Your task to perform on an android device: Search for sushi restaurants on Maps Image 0: 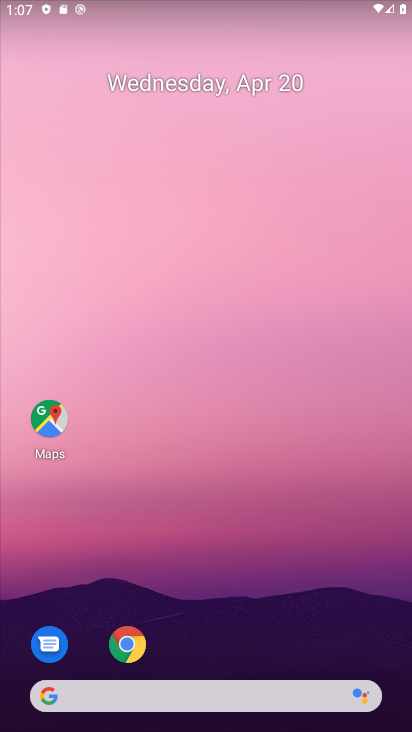
Step 0: click (52, 430)
Your task to perform on an android device: Search for sushi restaurants on Maps Image 1: 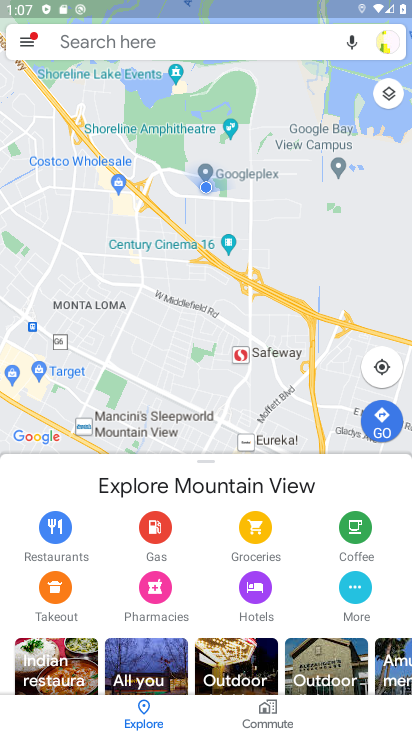
Step 1: click (162, 39)
Your task to perform on an android device: Search for sushi restaurants on Maps Image 2: 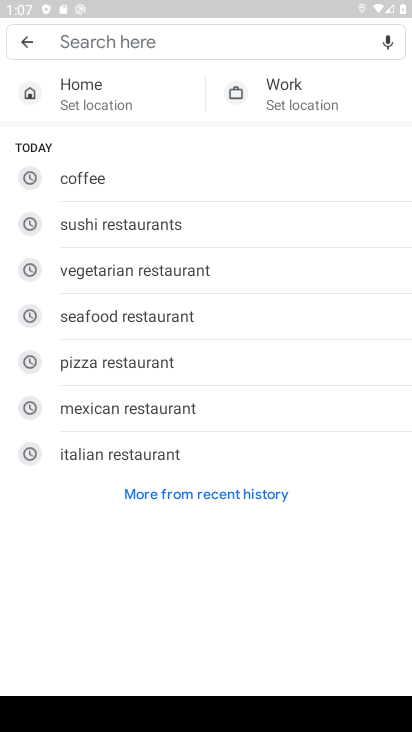
Step 2: click (136, 219)
Your task to perform on an android device: Search for sushi restaurants on Maps Image 3: 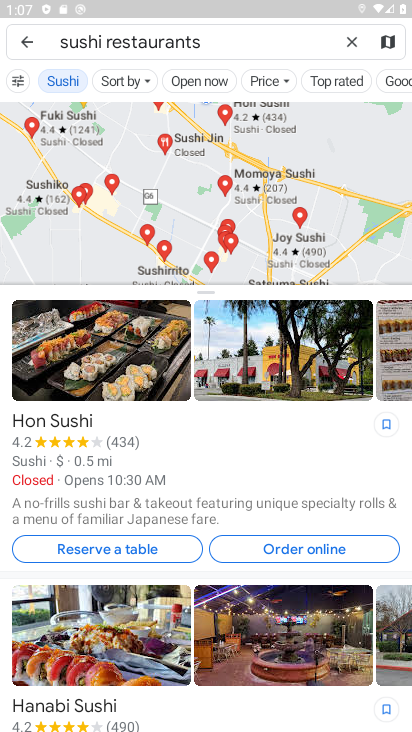
Step 3: task complete